Your task to perform on an android device: Open the stopwatch Image 0: 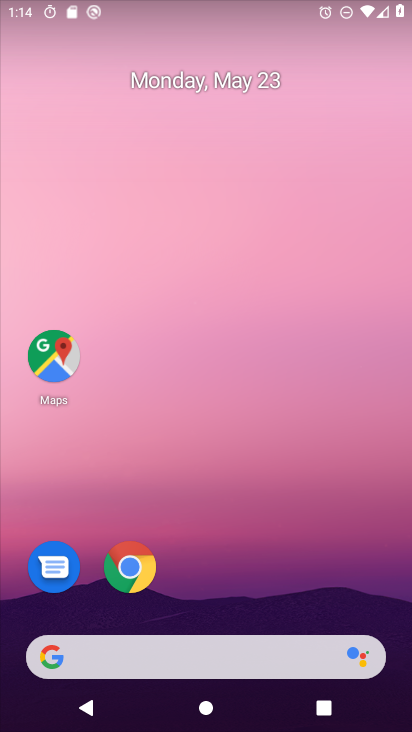
Step 0: drag from (238, 616) to (342, 2)
Your task to perform on an android device: Open the stopwatch Image 1: 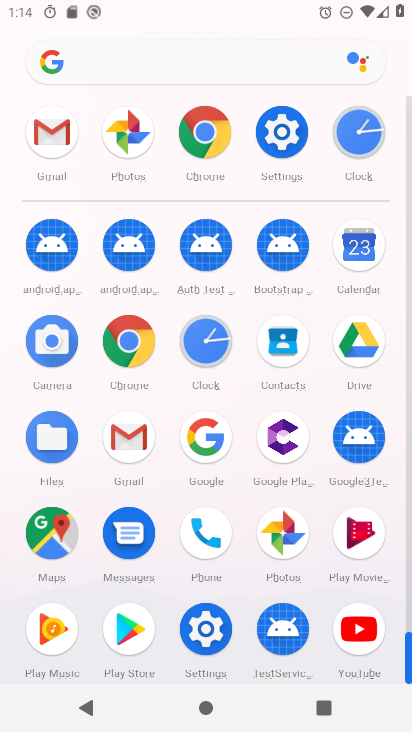
Step 1: click (367, 149)
Your task to perform on an android device: Open the stopwatch Image 2: 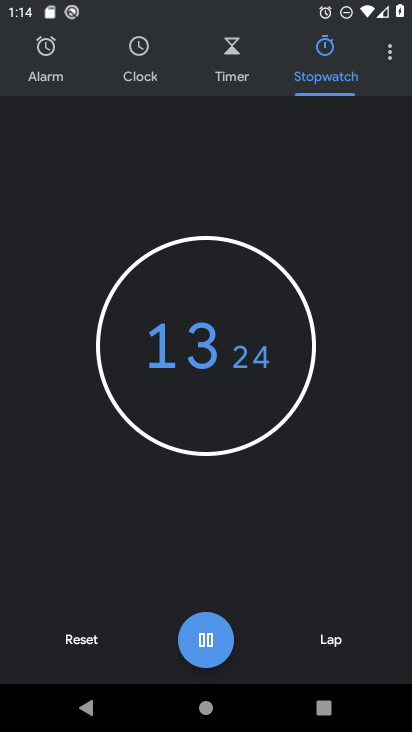
Step 2: task complete